Your task to perform on an android device: turn on the 12-hour format for clock Image 0: 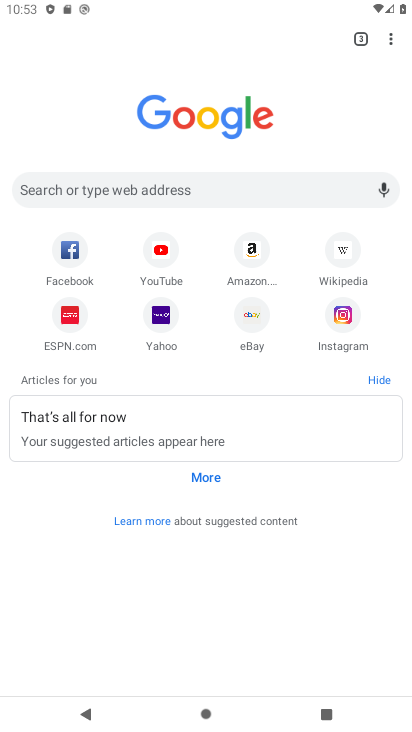
Step 0: press home button
Your task to perform on an android device: turn on the 12-hour format for clock Image 1: 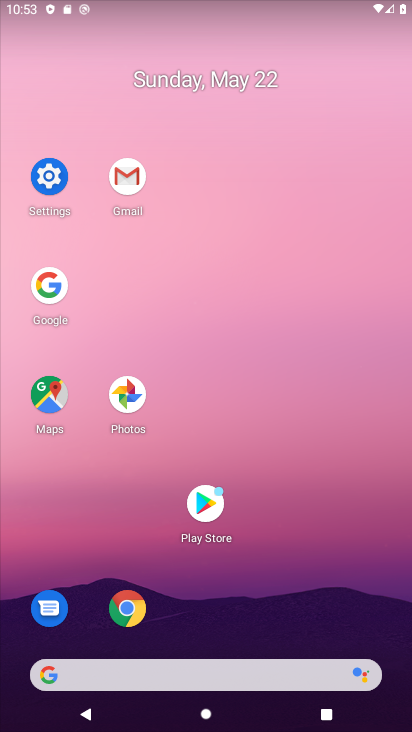
Step 1: drag from (288, 579) to (237, 114)
Your task to perform on an android device: turn on the 12-hour format for clock Image 2: 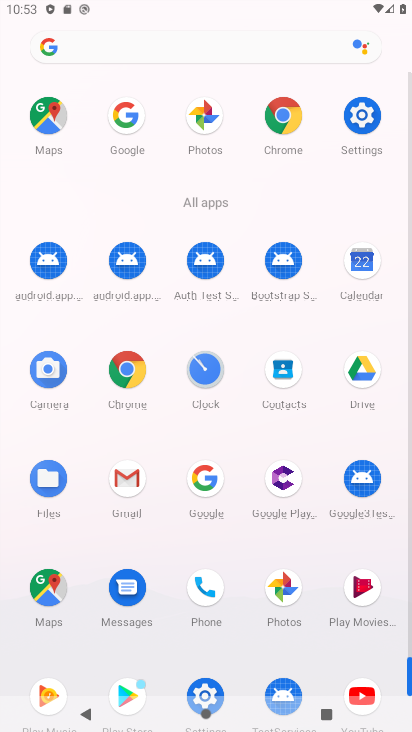
Step 2: drag from (211, 361) to (132, 304)
Your task to perform on an android device: turn on the 12-hour format for clock Image 3: 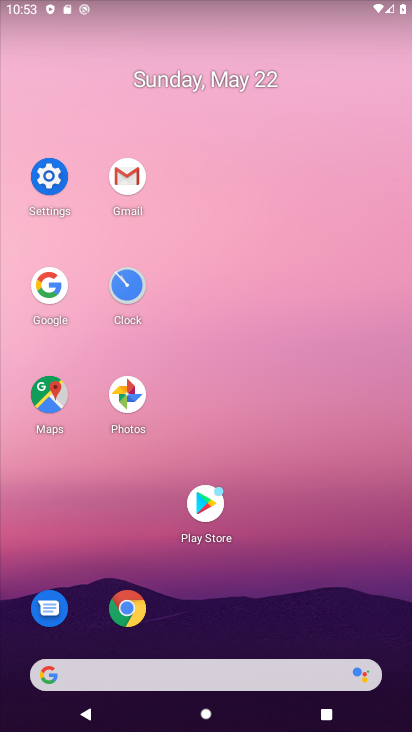
Step 3: click (141, 292)
Your task to perform on an android device: turn on the 12-hour format for clock Image 4: 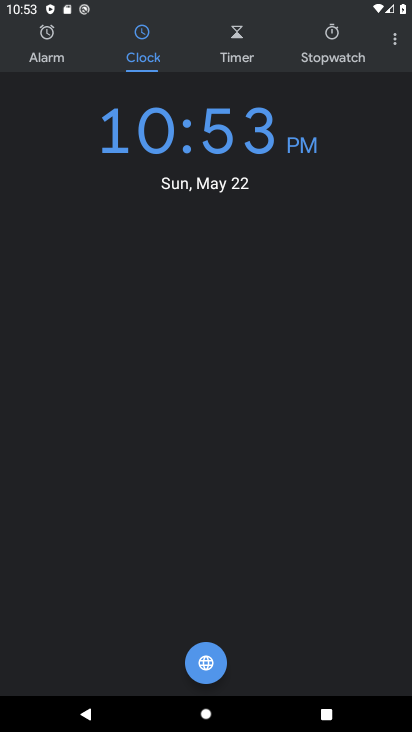
Step 4: click (398, 28)
Your task to perform on an android device: turn on the 12-hour format for clock Image 5: 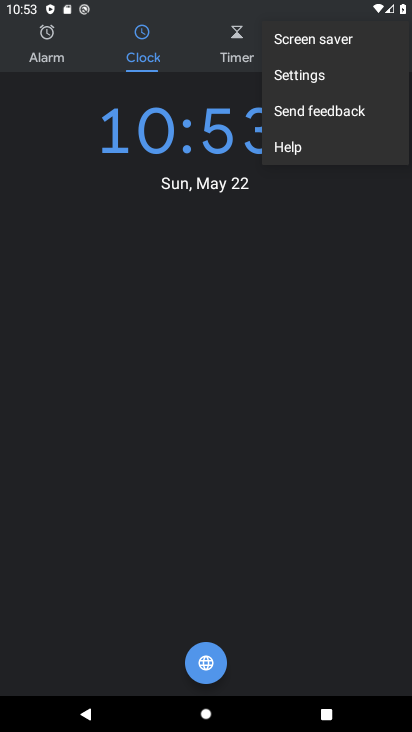
Step 5: click (345, 82)
Your task to perform on an android device: turn on the 12-hour format for clock Image 6: 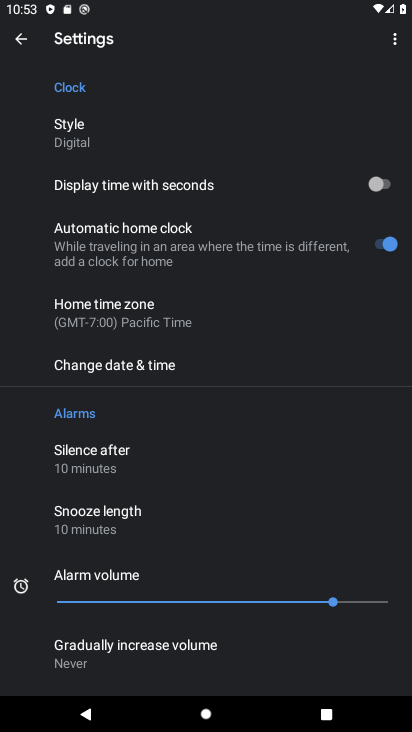
Step 6: click (157, 354)
Your task to perform on an android device: turn on the 12-hour format for clock Image 7: 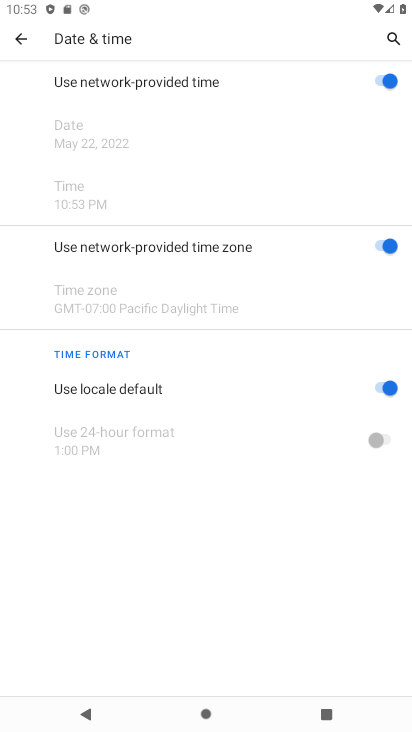
Step 7: task complete